Your task to perform on an android device: Search for "usb-b" on newegg, select the first entry, and add it to the cart. Image 0: 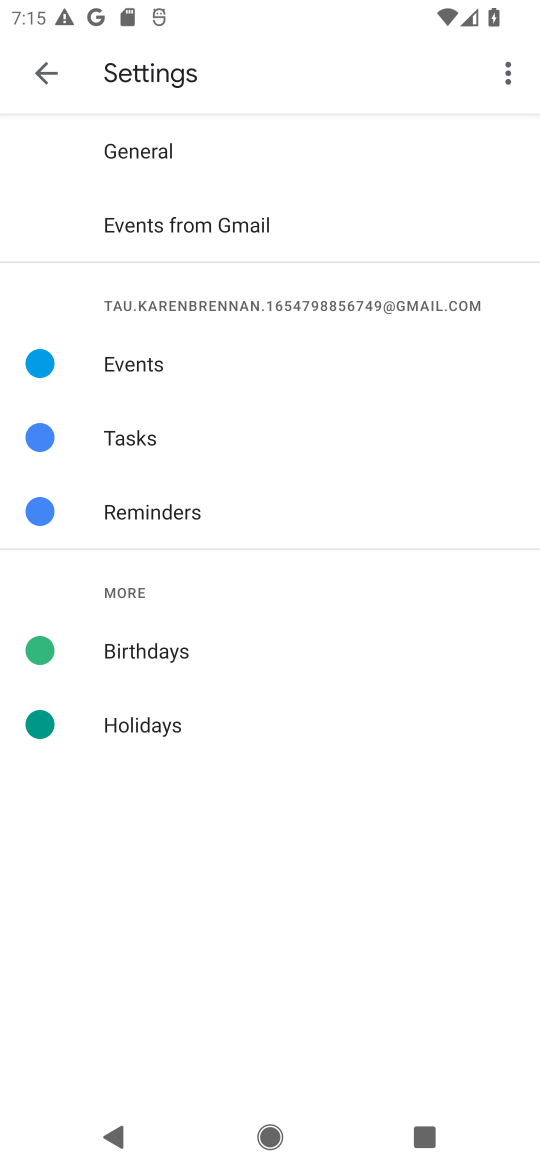
Step 0: press home button
Your task to perform on an android device: Search for "usb-b" on newegg, select the first entry, and add it to the cart. Image 1: 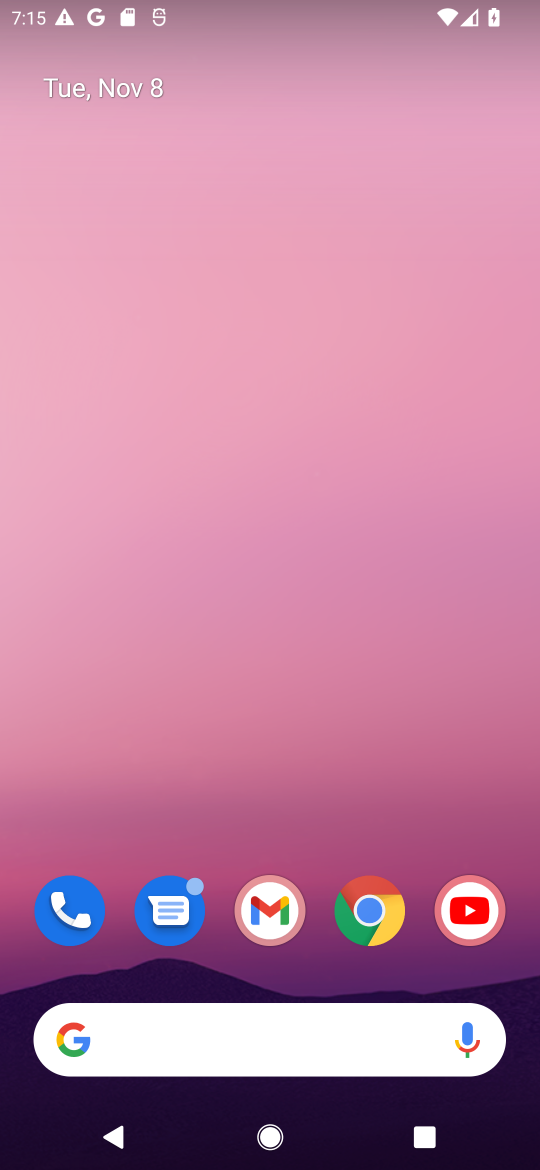
Step 1: click (382, 911)
Your task to perform on an android device: Search for "usb-b" on newegg, select the first entry, and add it to the cart. Image 2: 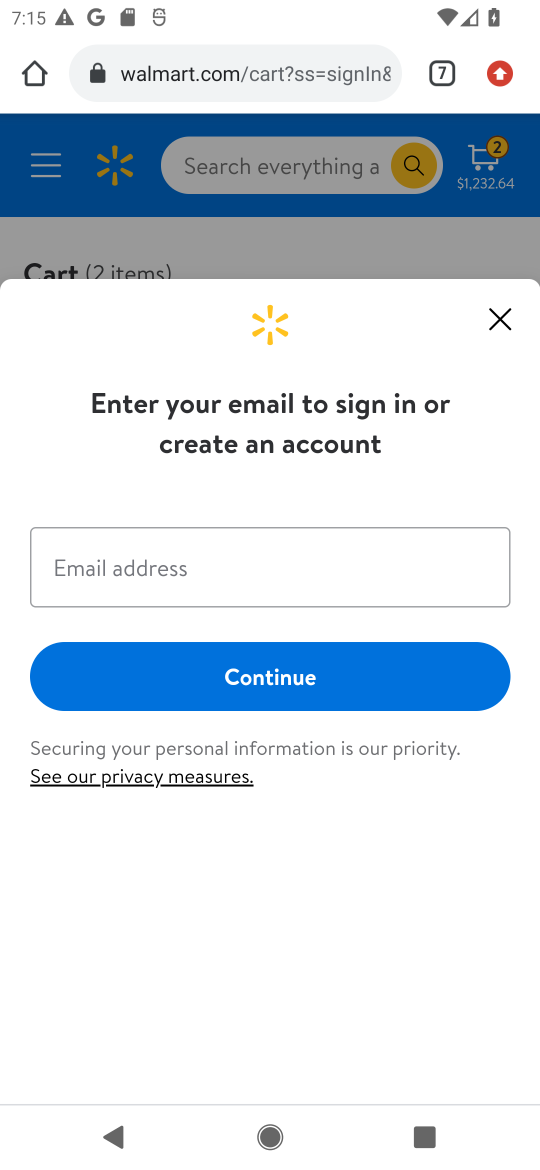
Step 2: click (445, 60)
Your task to perform on an android device: Search for "usb-b" on newegg, select the first entry, and add it to the cart. Image 3: 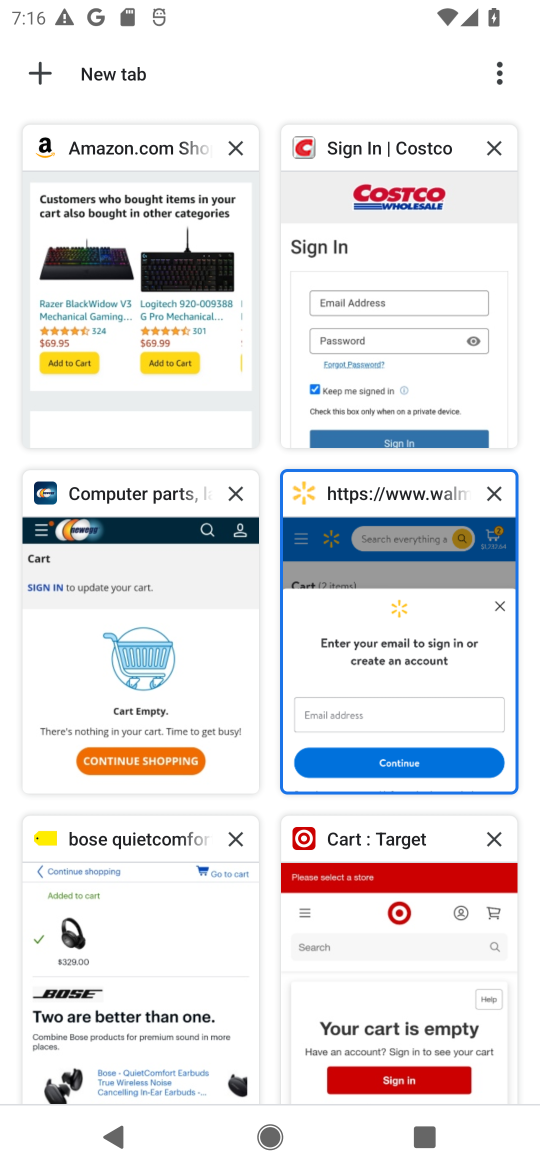
Step 3: click (153, 546)
Your task to perform on an android device: Search for "usb-b" on newegg, select the first entry, and add it to the cart. Image 4: 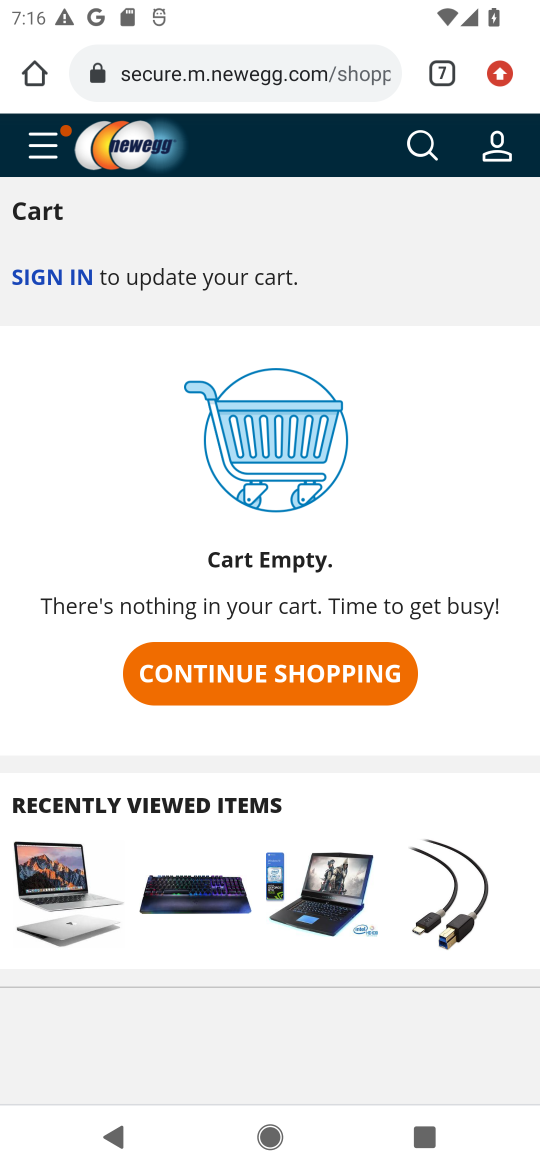
Step 4: click (423, 138)
Your task to perform on an android device: Search for "usb-b" on newegg, select the first entry, and add it to the cart. Image 5: 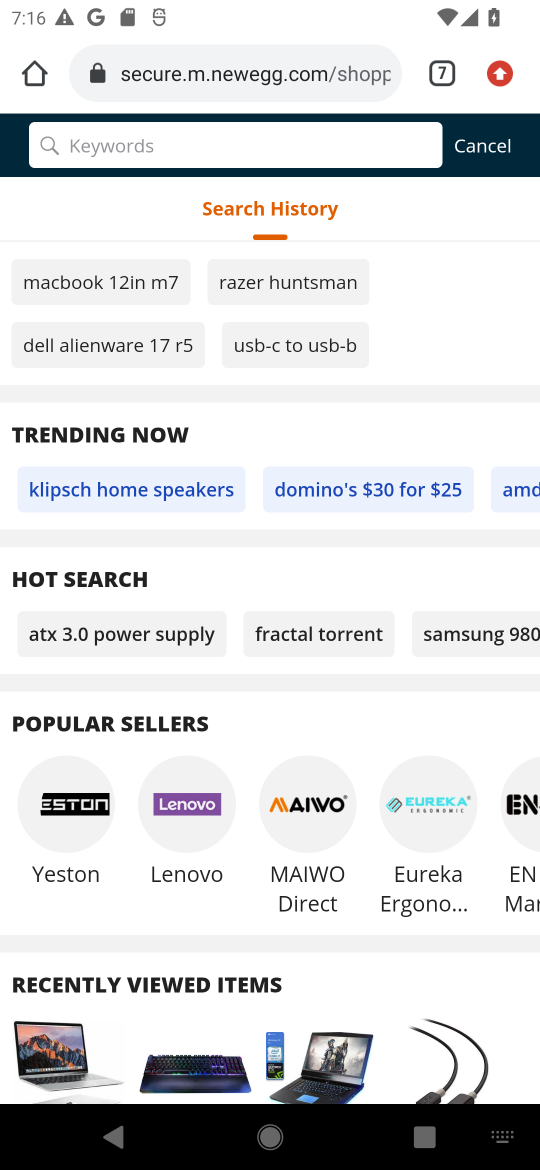
Step 5: type "8sb-b"
Your task to perform on an android device: Search for "usb-b" on newegg, select the first entry, and add it to the cart. Image 6: 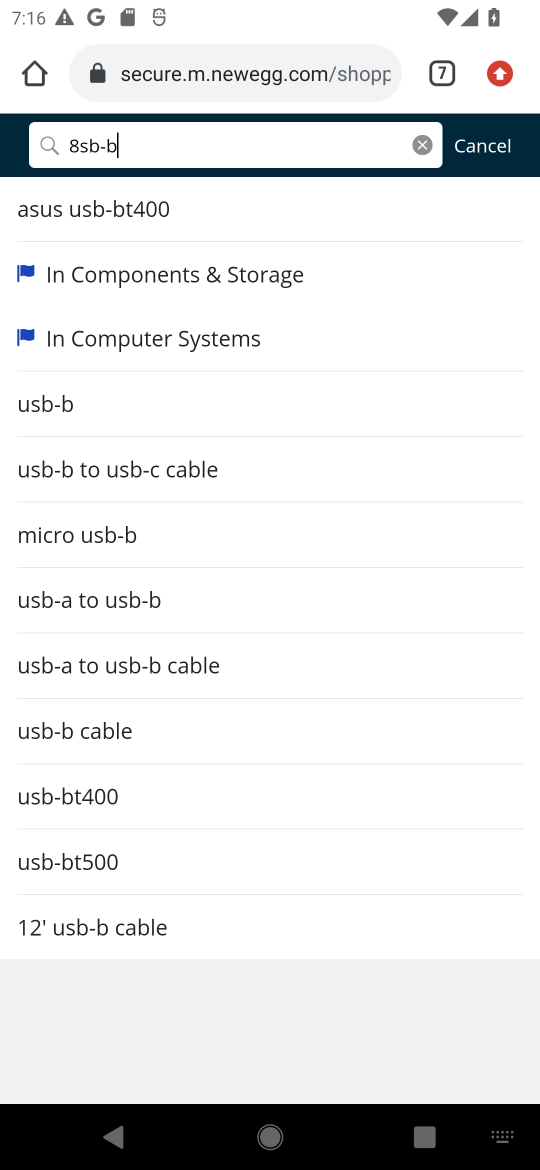
Step 6: click (34, 394)
Your task to perform on an android device: Search for "usb-b" on newegg, select the first entry, and add it to the cart. Image 7: 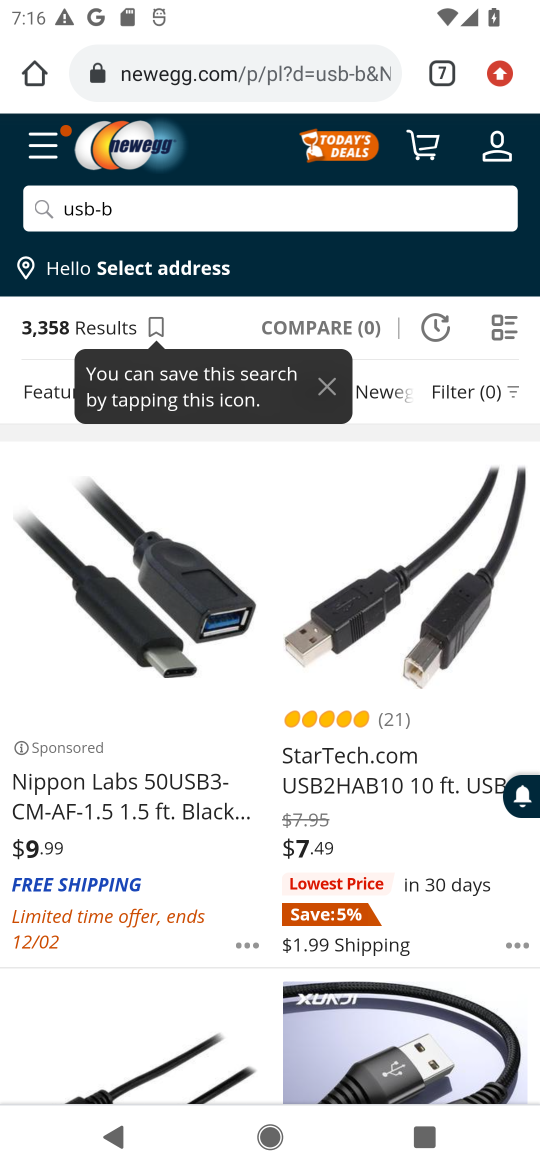
Step 7: click (314, 777)
Your task to perform on an android device: Search for "usb-b" on newegg, select the first entry, and add it to the cart. Image 8: 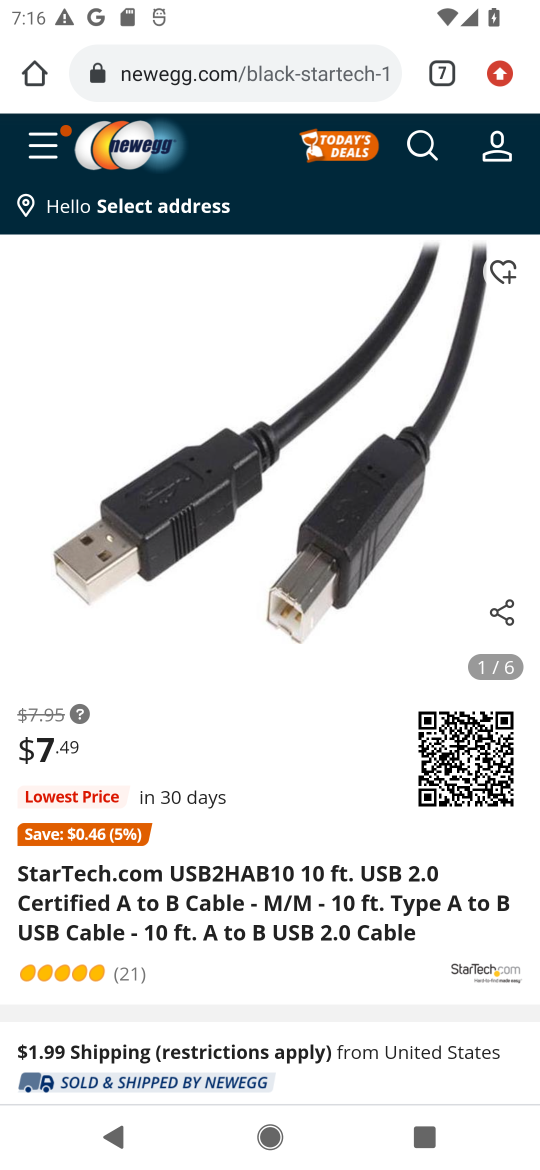
Step 8: click (263, 1086)
Your task to perform on an android device: Search for "usb-b" on newegg, select the first entry, and add it to the cart. Image 9: 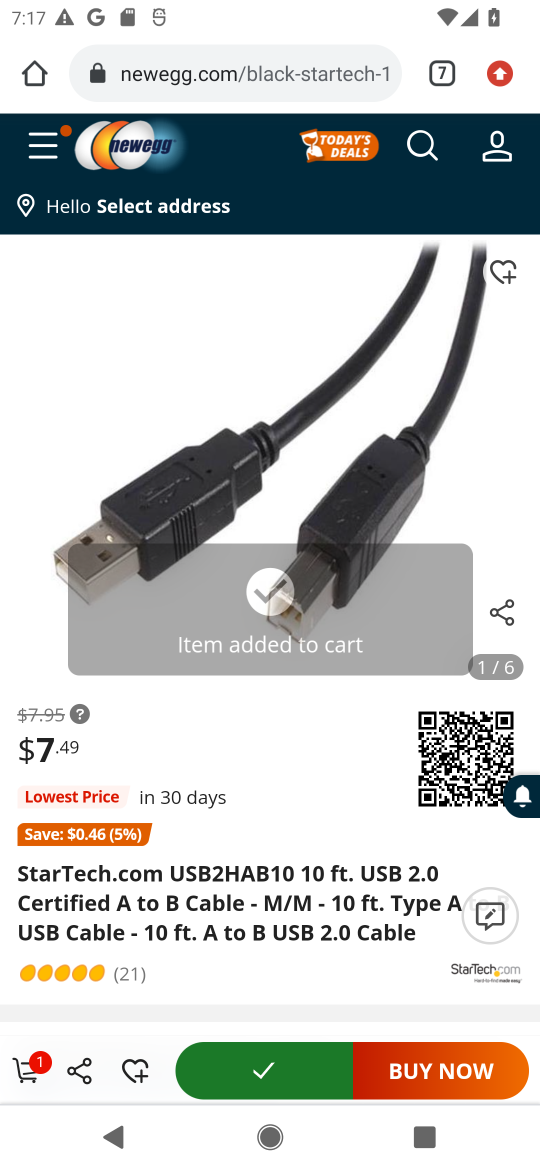
Step 9: task complete